Your task to perform on an android device: Go to Google maps Image 0: 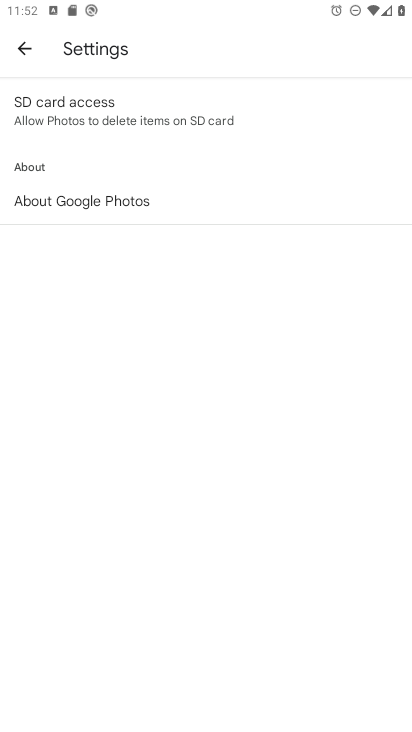
Step 0: press home button
Your task to perform on an android device: Go to Google maps Image 1: 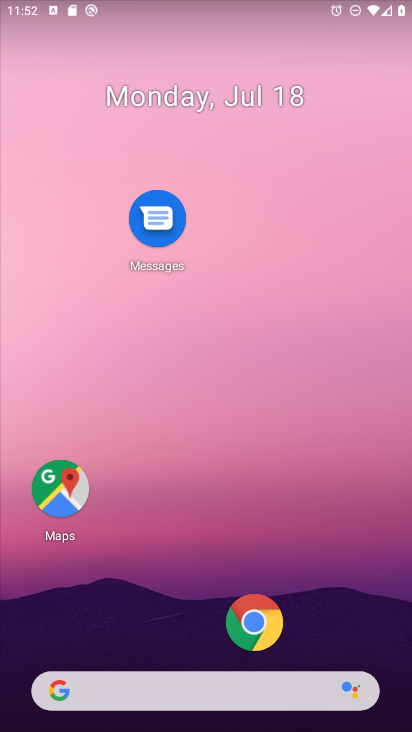
Step 1: drag from (231, 560) to (205, 189)
Your task to perform on an android device: Go to Google maps Image 2: 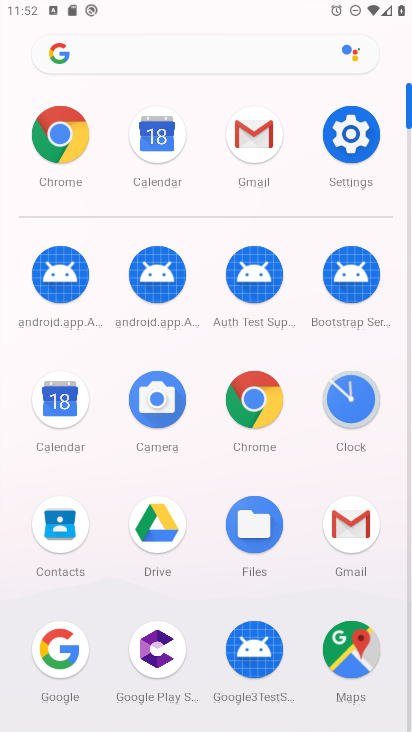
Step 2: click (352, 652)
Your task to perform on an android device: Go to Google maps Image 3: 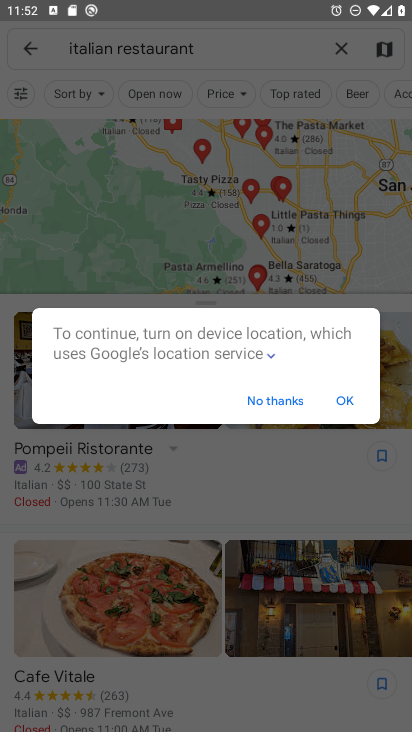
Step 3: click (346, 406)
Your task to perform on an android device: Go to Google maps Image 4: 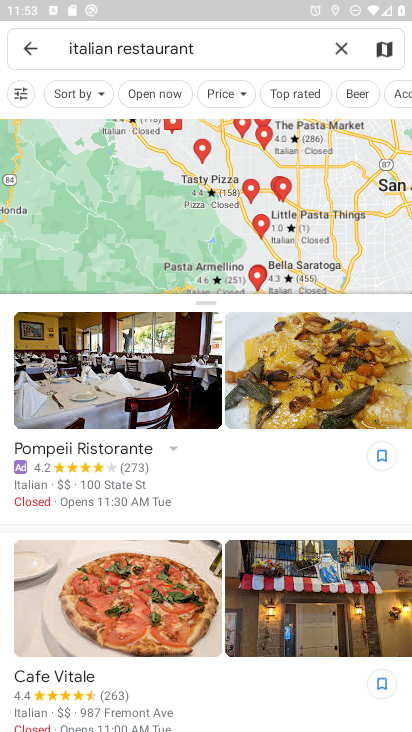
Step 4: task complete